Your task to perform on an android device: check storage Image 0: 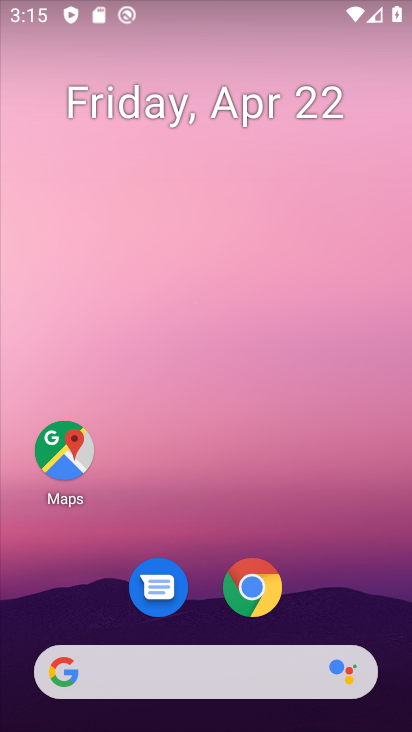
Step 0: drag from (343, 555) to (264, 2)
Your task to perform on an android device: check storage Image 1: 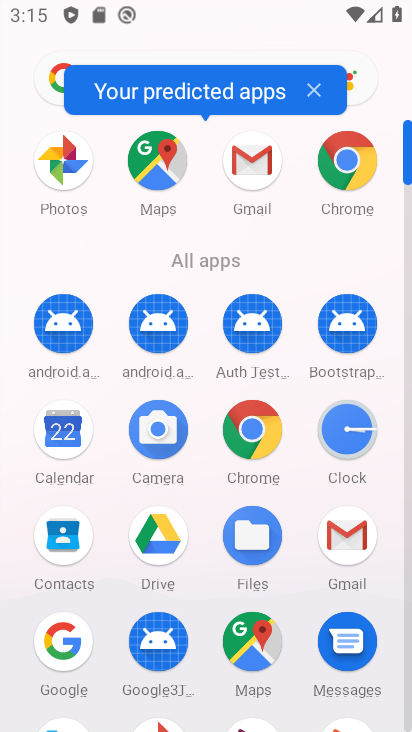
Step 1: drag from (202, 264) to (202, 21)
Your task to perform on an android device: check storage Image 2: 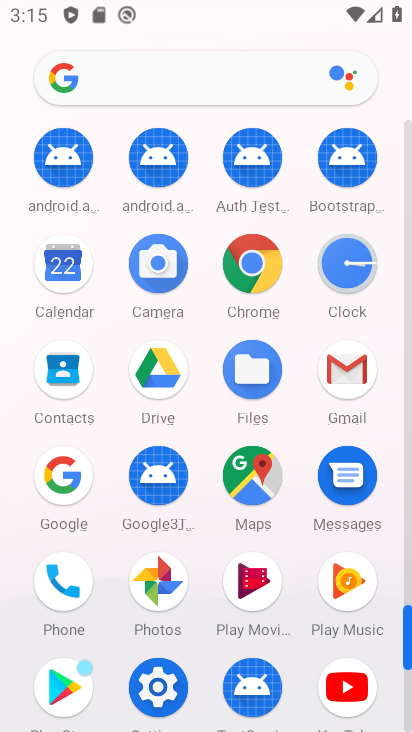
Step 2: click (153, 649)
Your task to perform on an android device: check storage Image 3: 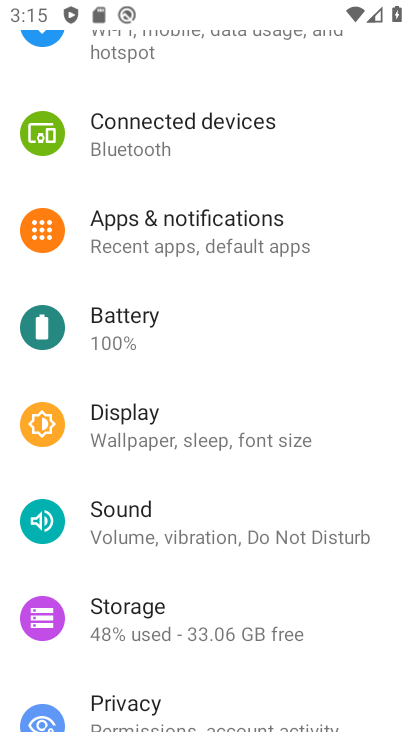
Step 3: click (138, 626)
Your task to perform on an android device: check storage Image 4: 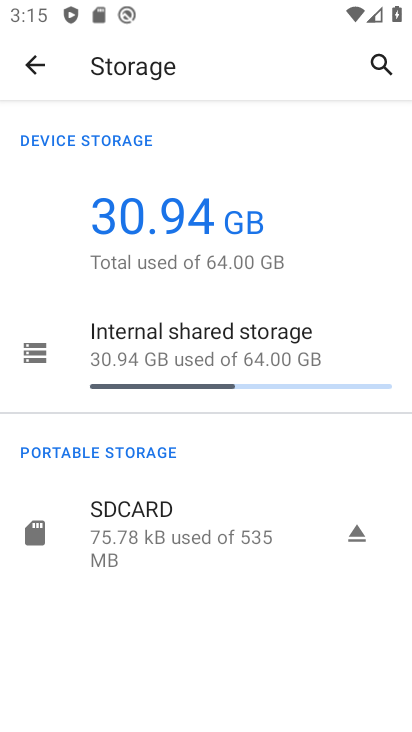
Step 4: task complete